Your task to perform on an android device: turn off smart reply in the gmail app Image 0: 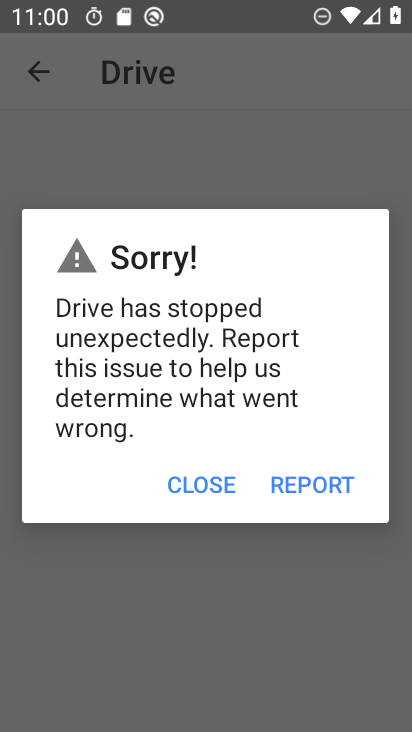
Step 0: click (196, 502)
Your task to perform on an android device: turn off smart reply in the gmail app Image 1: 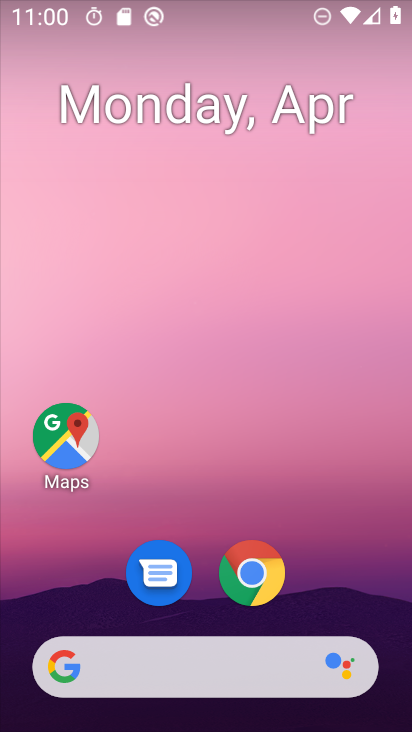
Step 1: drag from (334, 529) to (312, 62)
Your task to perform on an android device: turn off smart reply in the gmail app Image 2: 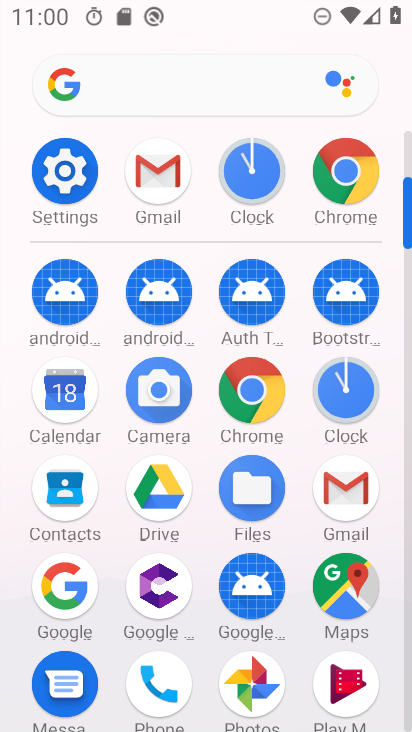
Step 2: click (174, 188)
Your task to perform on an android device: turn off smart reply in the gmail app Image 3: 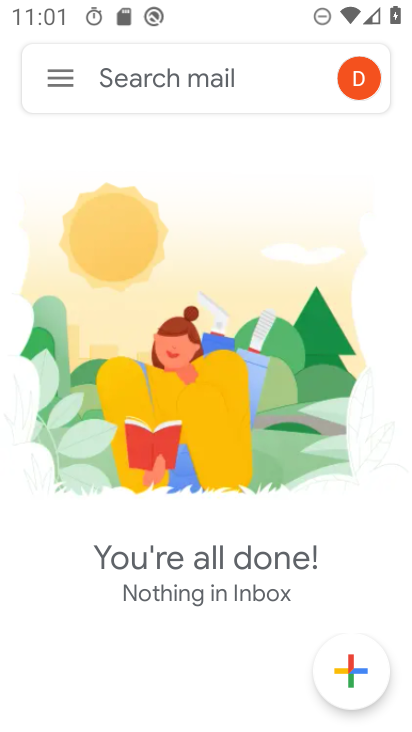
Step 3: click (59, 71)
Your task to perform on an android device: turn off smart reply in the gmail app Image 4: 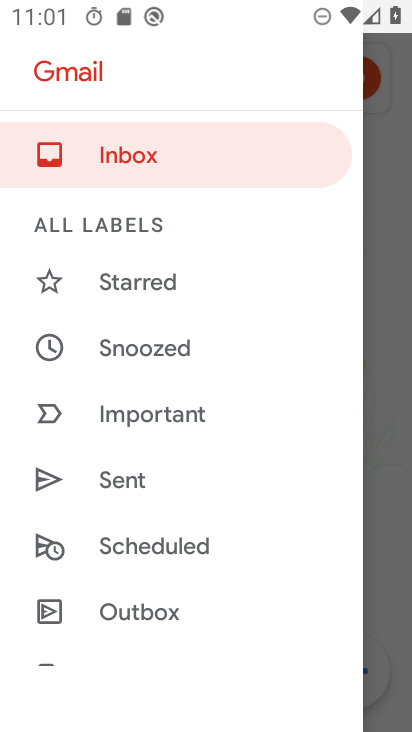
Step 4: drag from (253, 566) to (213, 205)
Your task to perform on an android device: turn off smart reply in the gmail app Image 5: 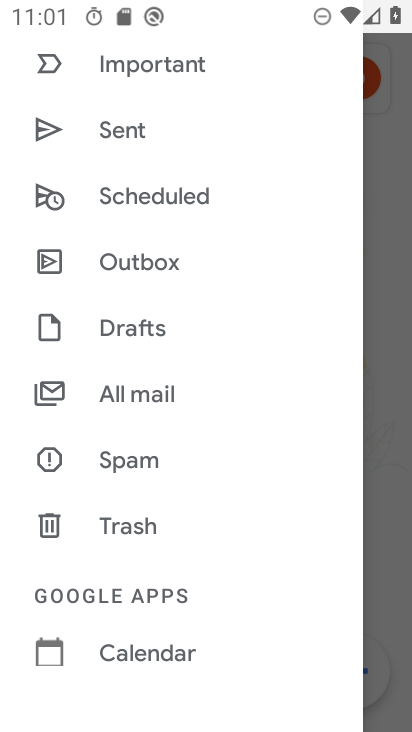
Step 5: drag from (206, 581) to (159, 239)
Your task to perform on an android device: turn off smart reply in the gmail app Image 6: 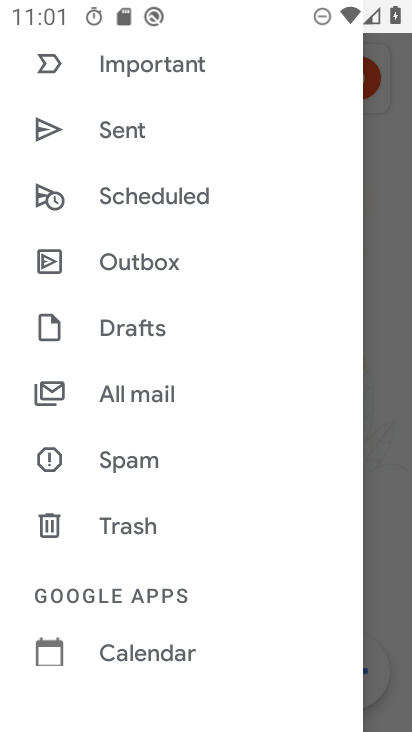
Step 6: drag from (178, 584) to (157, 223)
Your task to perform on an android device: turn off smart reply in the gmail app Image 7: 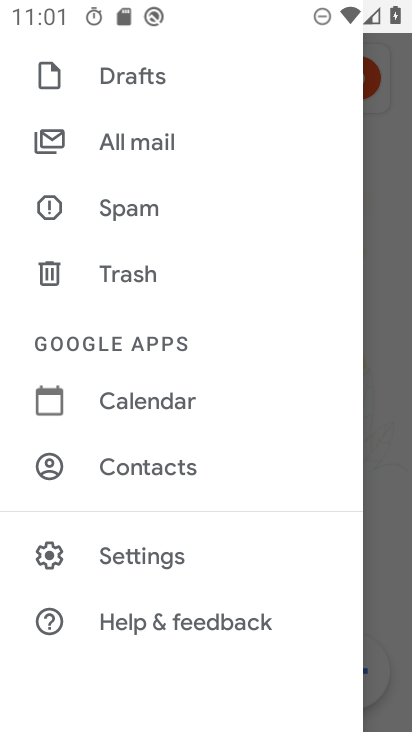
Step 7: click (152, 554)
Your task to perform on an android device: turn off smart reply in the gmail app Image 8: 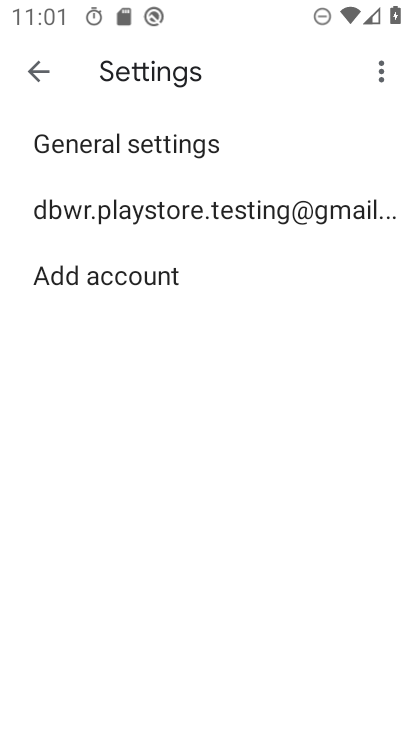
Step 8: click (102, 223)
Your task to perform on an android device: turn off smart reply in the gmail app Image 9: 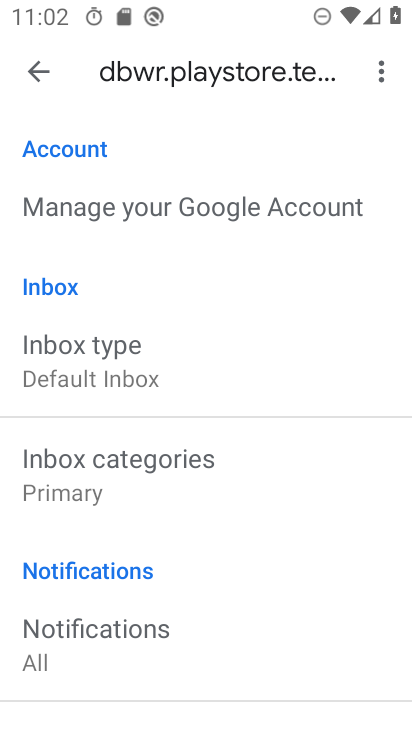
Step 9: drag from (239, 612) to (175, 203)
Your task to perform on an android device: turn off smart reply in the gmail app Image 10: 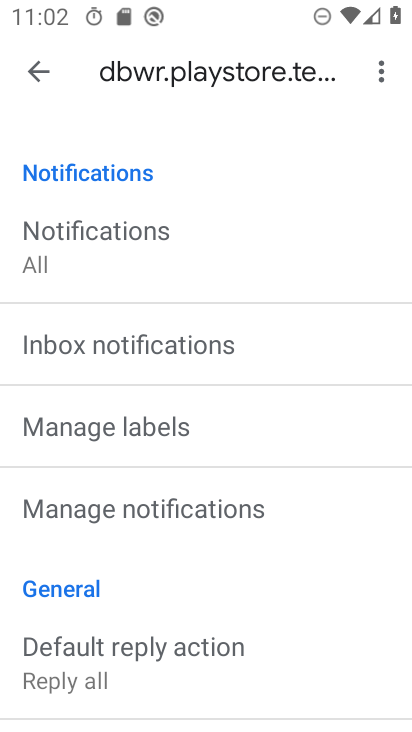
Step 10: drag from (206, 597) to (129, 211)
Your task to perform on an android device: turn off smart reply in the gmail app Image 11: 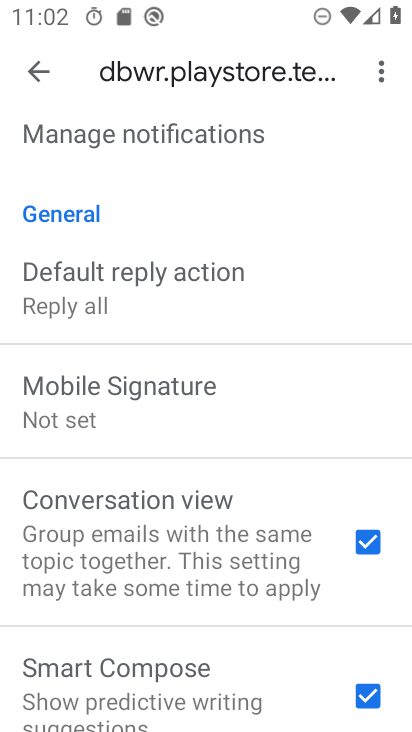
Step 11: drag from (174, 566) to (102, 165)
Your task to perform on an android device: turn off smart reply in the gmail app Image 12: 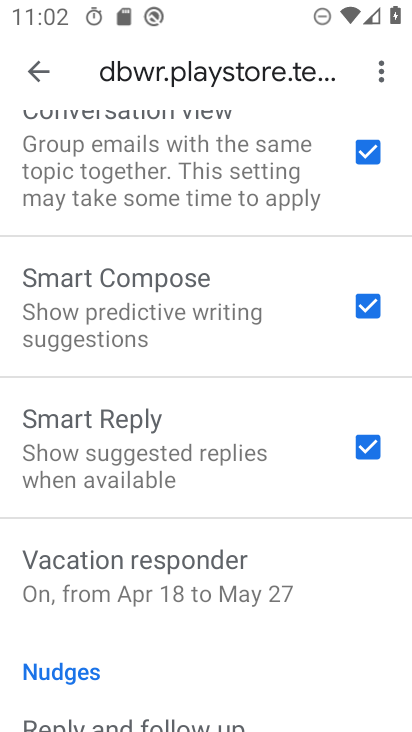
Step 12: drag from (163, 557) to (130, 132)
Your task to perform on an android device: turn off smart reply in the gmail app Image 13: 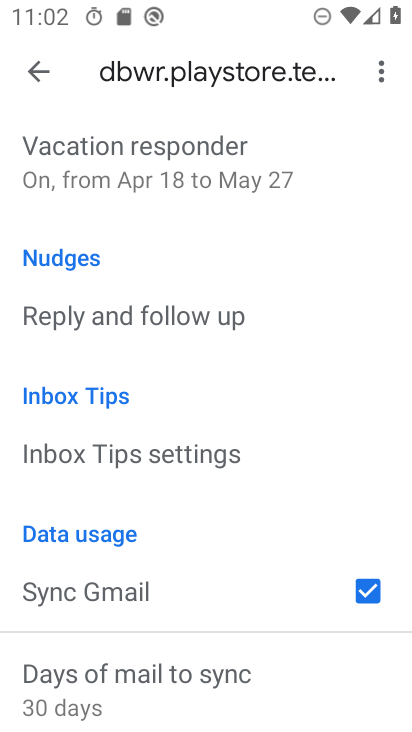
Step 13: drag from (276, 505) to (250, 236)
Your task to perform on an android device: turn off smart reply in the gmail app Image 14: 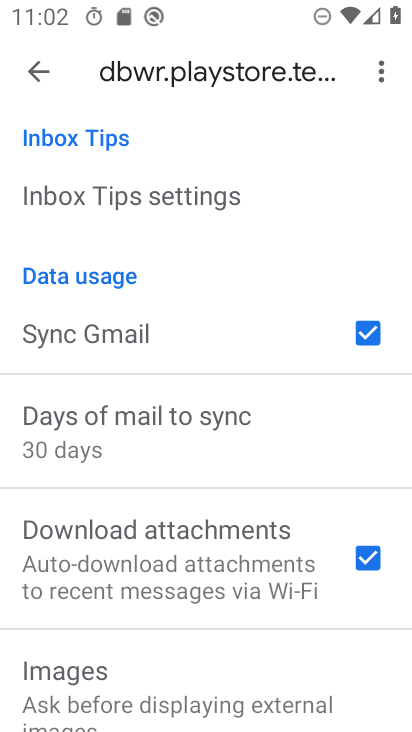
Step 14: drag from (245, 627) to (178, 176)
Your task to perform on an android device: turn off smart reply in the gmail app Image 15: 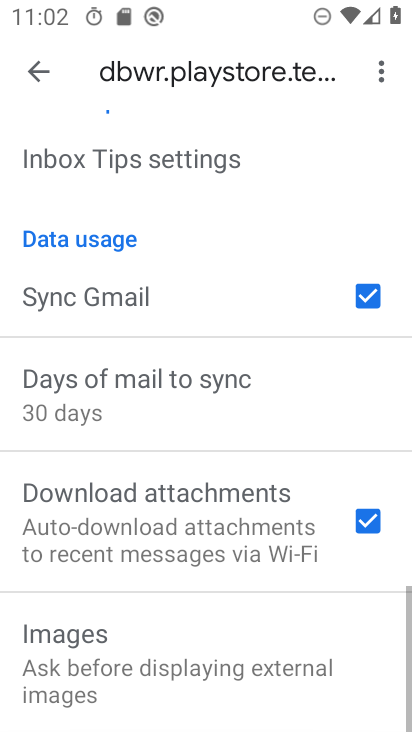
Step 15: drag from (191, 203) to (254, 600)
Your task to perform on an android device: turn off smart reply in the gmail app Image 16: 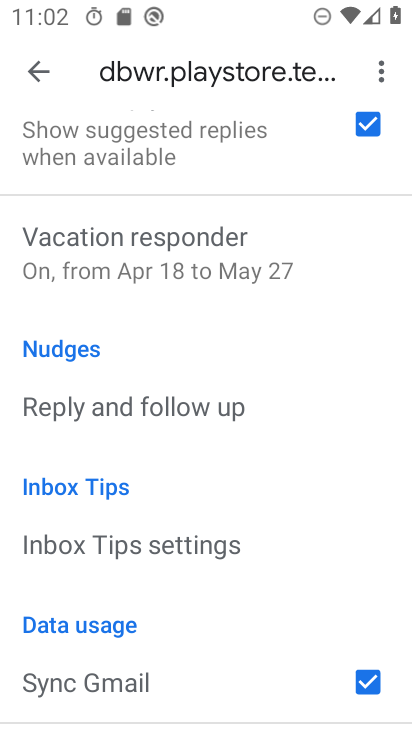
Step 16: drag from (162, 226) to (168, 620)
Your task to perform on an android device: turn off smart reply in the gmail app Image 17: 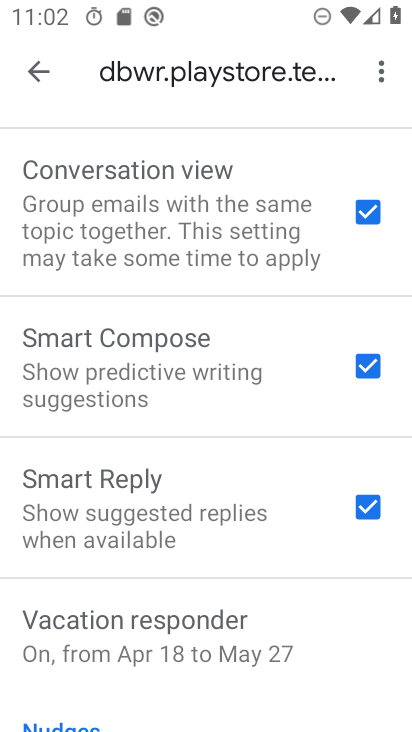
Step 17: drag from (81, 343) to (90, 567)
Your task to perform on an android device: turn off smart reply in the gmail app Image 18: 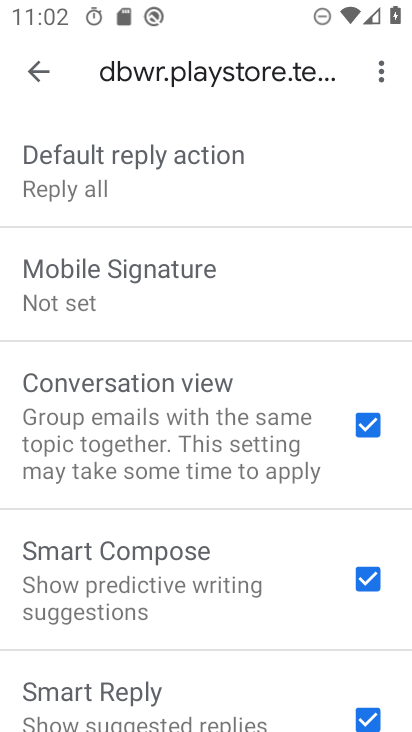
Step 18: drag from (219, 626) to (173, 319)
Your task to perform on an android device: turn off smart reply in the gmail app Image 19: 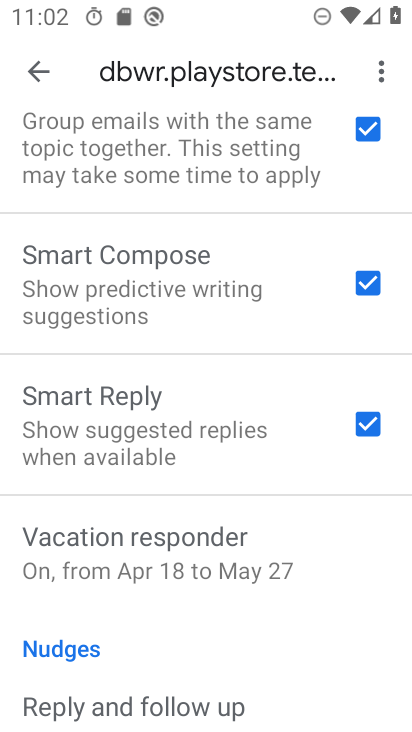
Step 19: click (211, 406)
Your task to perform on an android device: turn off smart reply in the gmail app Image 20: 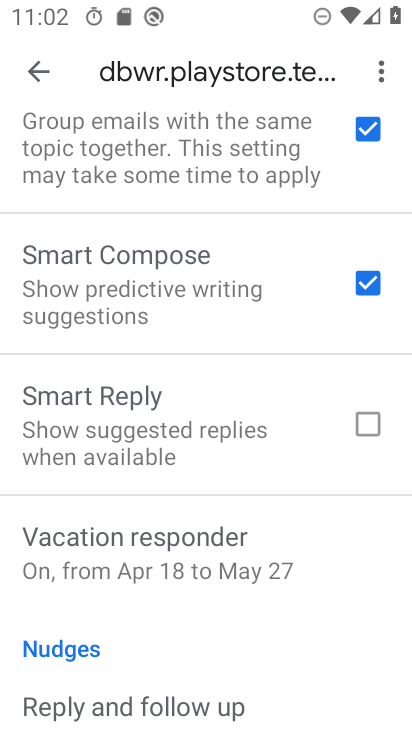
Step 20: task complete